Your task to perform on an android device: open app "DuckDuckGo Privacy Browser" Image 0: 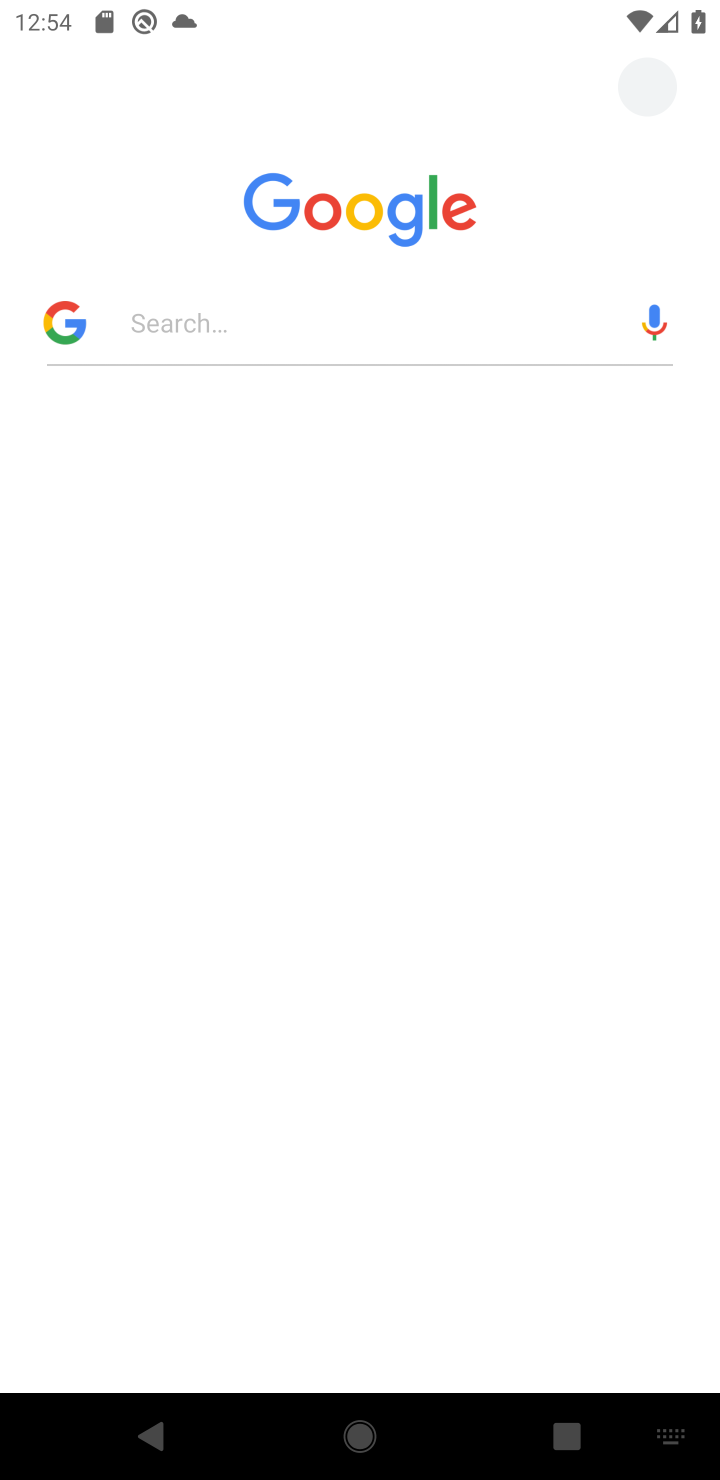
Step 0: press home button
Your task to perform on an android device: open app "DuckDuckGo Privacy Browser" Image 1: 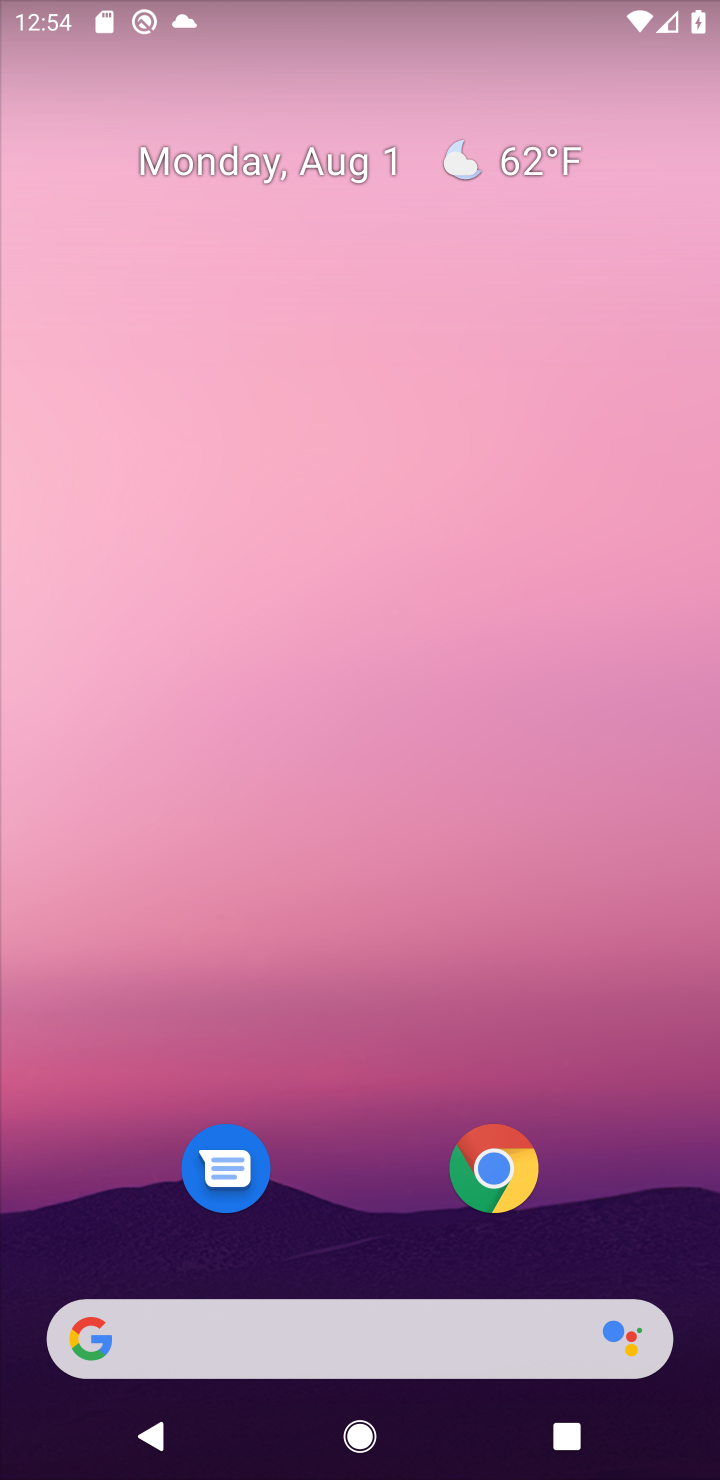
Step 1: click (407, 489)
Your task to perform on an android device: open app "DuckDuckGo Privacy Browser" Image 2: 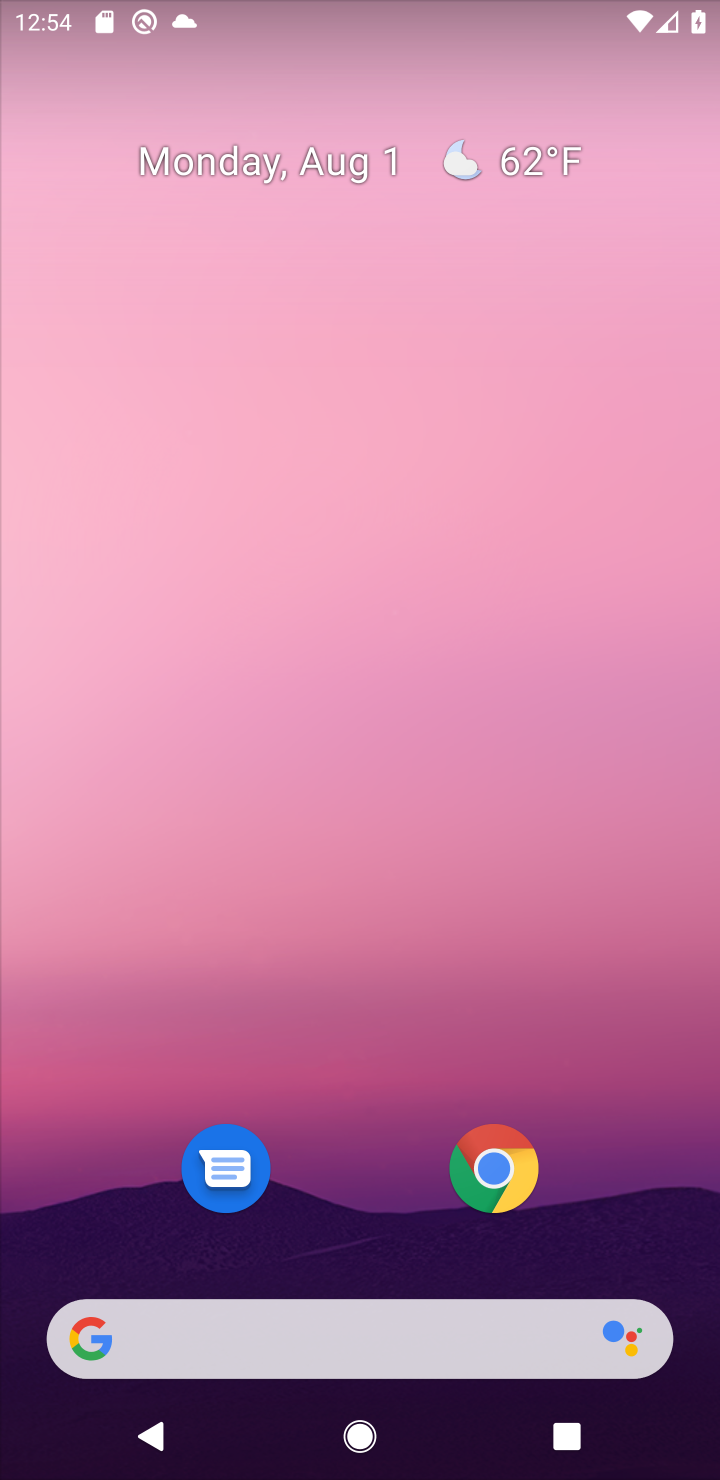
Step 2: drag from (369, 1229) to (275, 122)
Your task to perform on an android device: open app "DuckDuckGo Privacy Browser" Image 3: 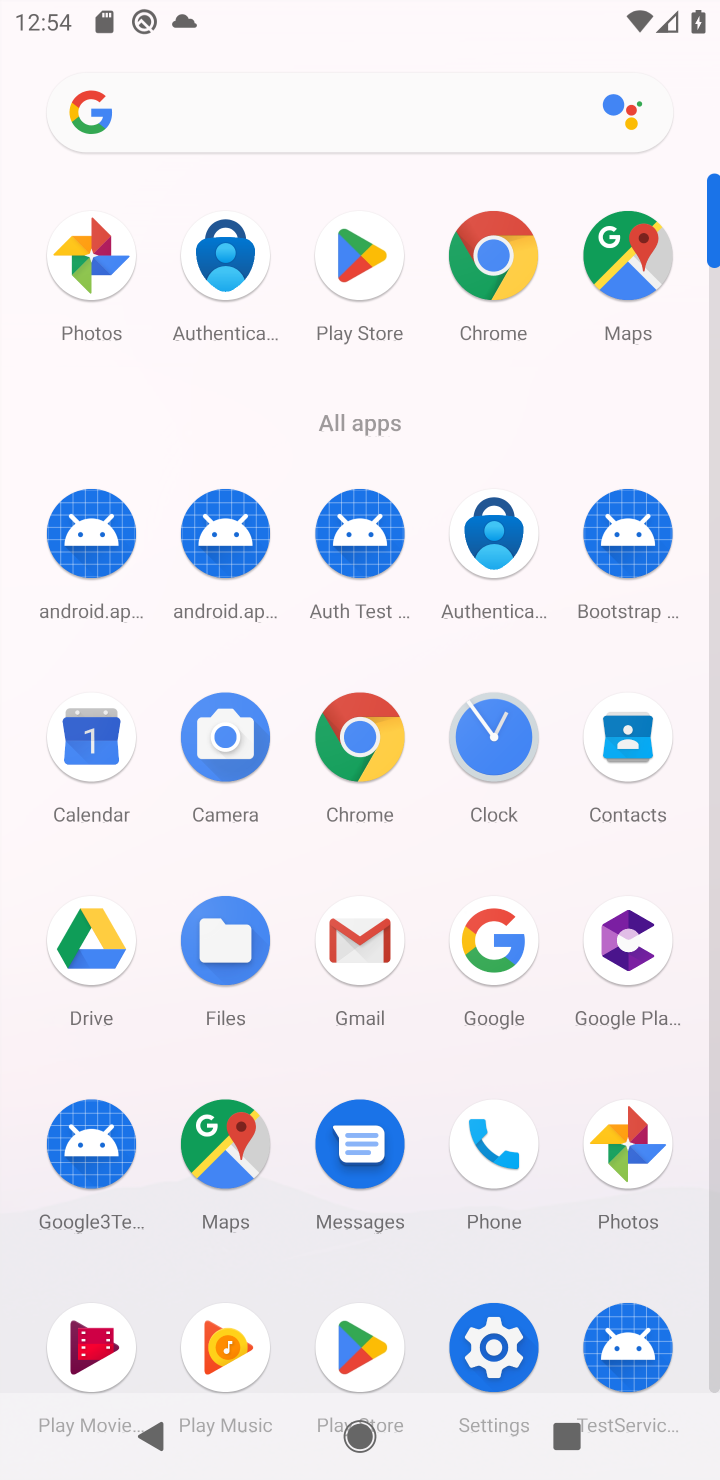
Step 3: click (348, 1353)
Your task to perform on an android device: open app "DuckDuckGo Privacy Browser" Image 4: 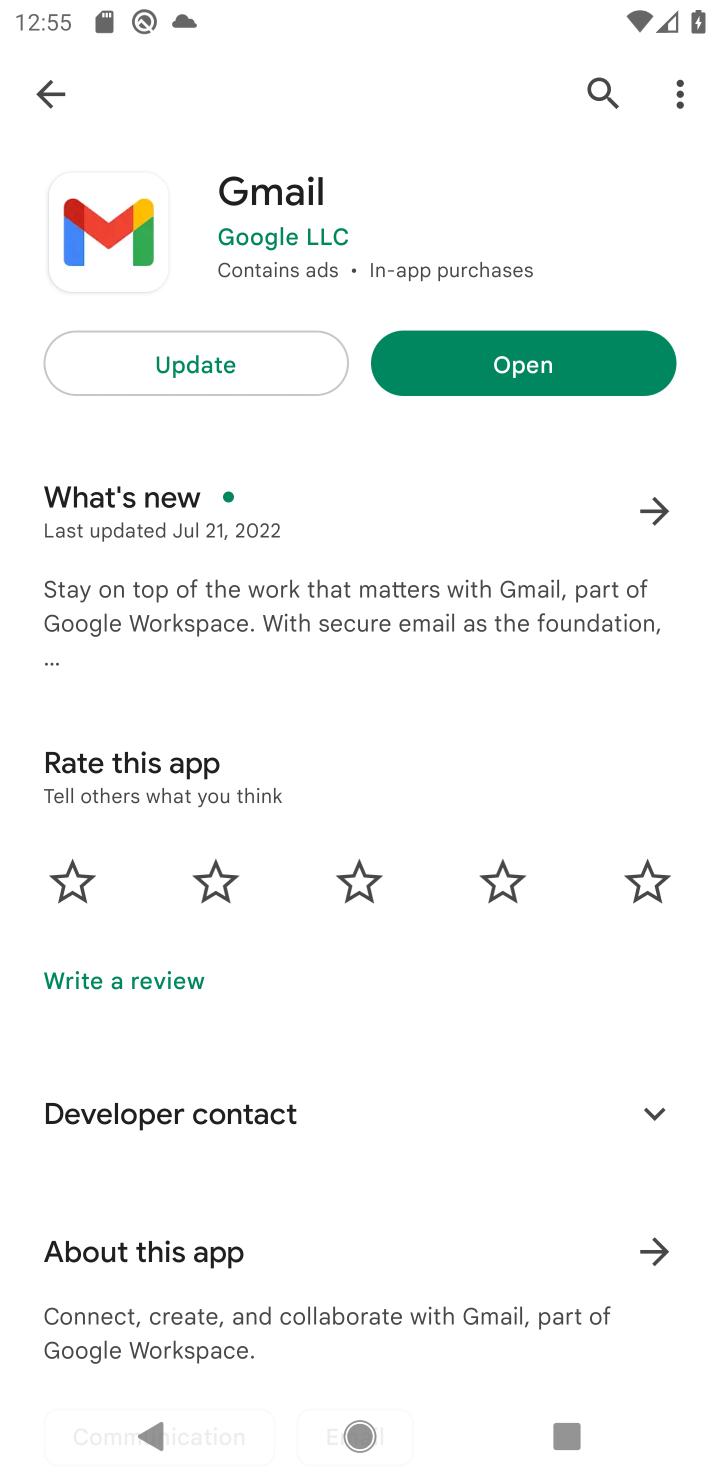
Step 4: click (595, 88)
Your task to perform on an android device: open app "DuckDuckGo Privacy Browser" Image 5: 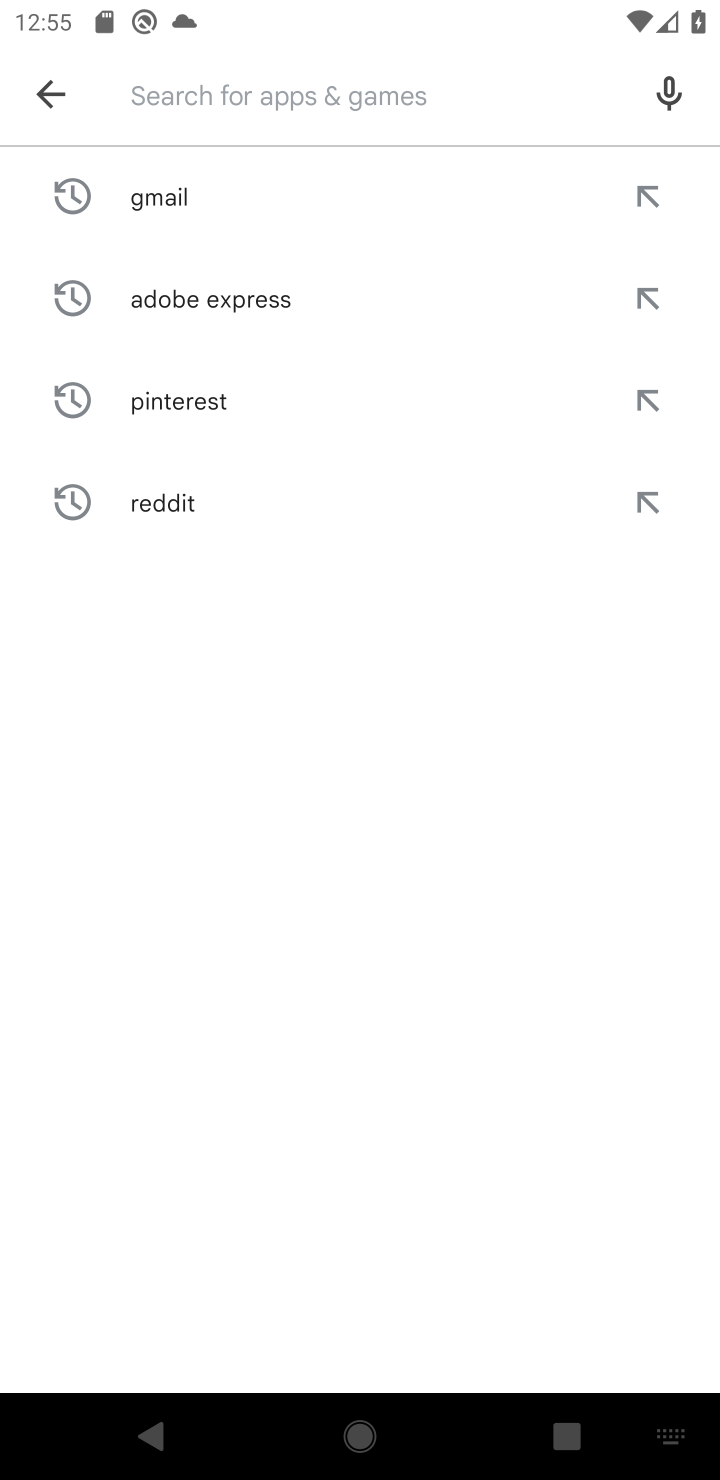
Step 5: type "DuckDuckGo Privacy Browser"
Your task to perform on an android device: open app "DuckDuckGo Privacy Browser" Image 6: 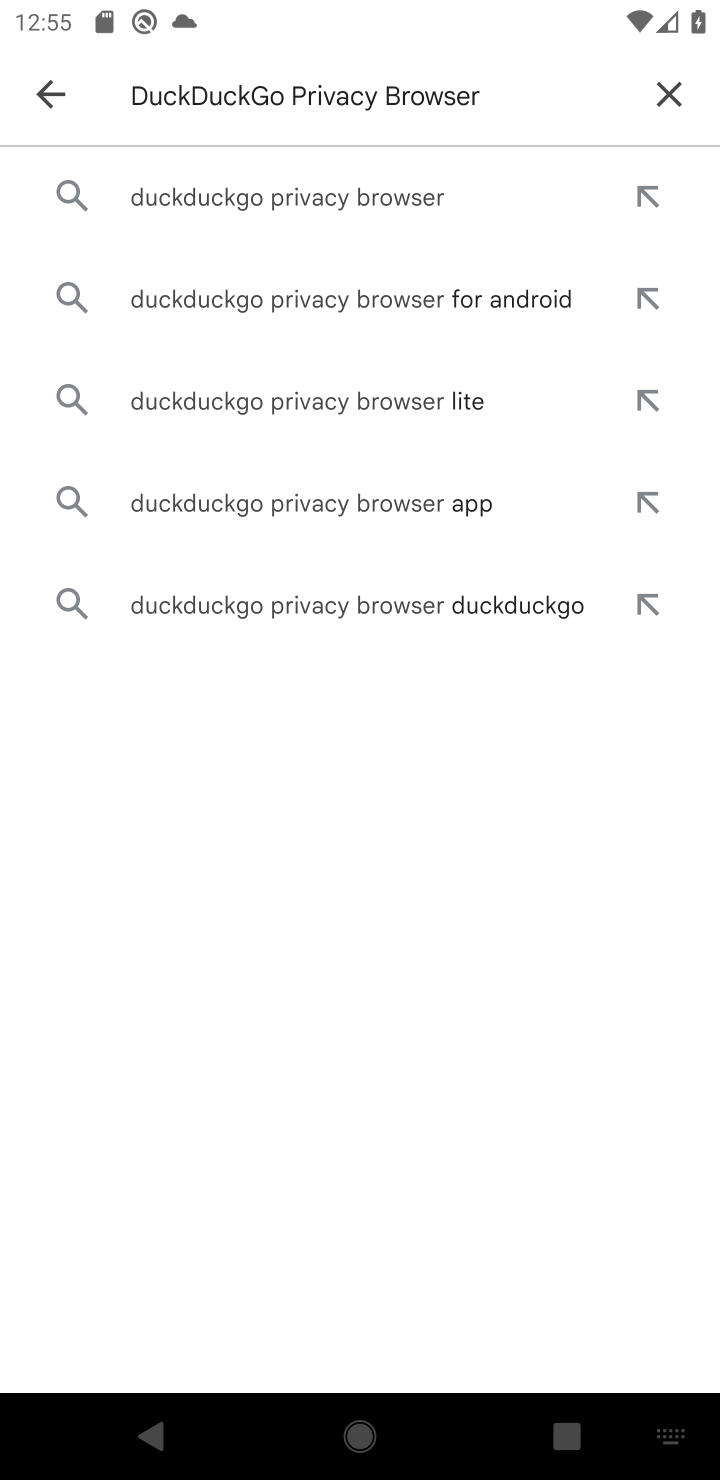
Step 6: click (312, 199)
Your task to perform on an android device: open app "DuckDuckGo Privacy Browser" Image 7: 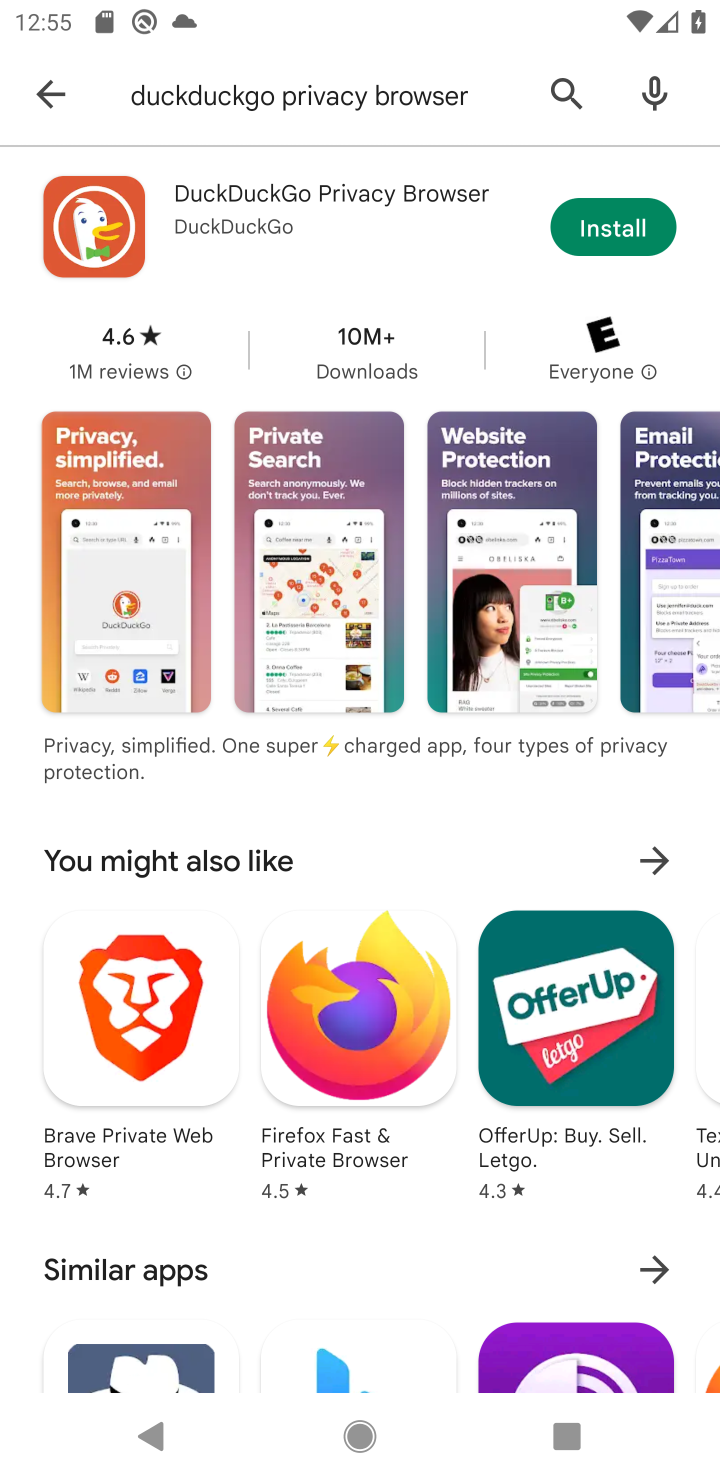
Step 7: click (609, 249)
Your task to perform on an android device: open app "DuckDuckGo Privacy Browser" Image 8: 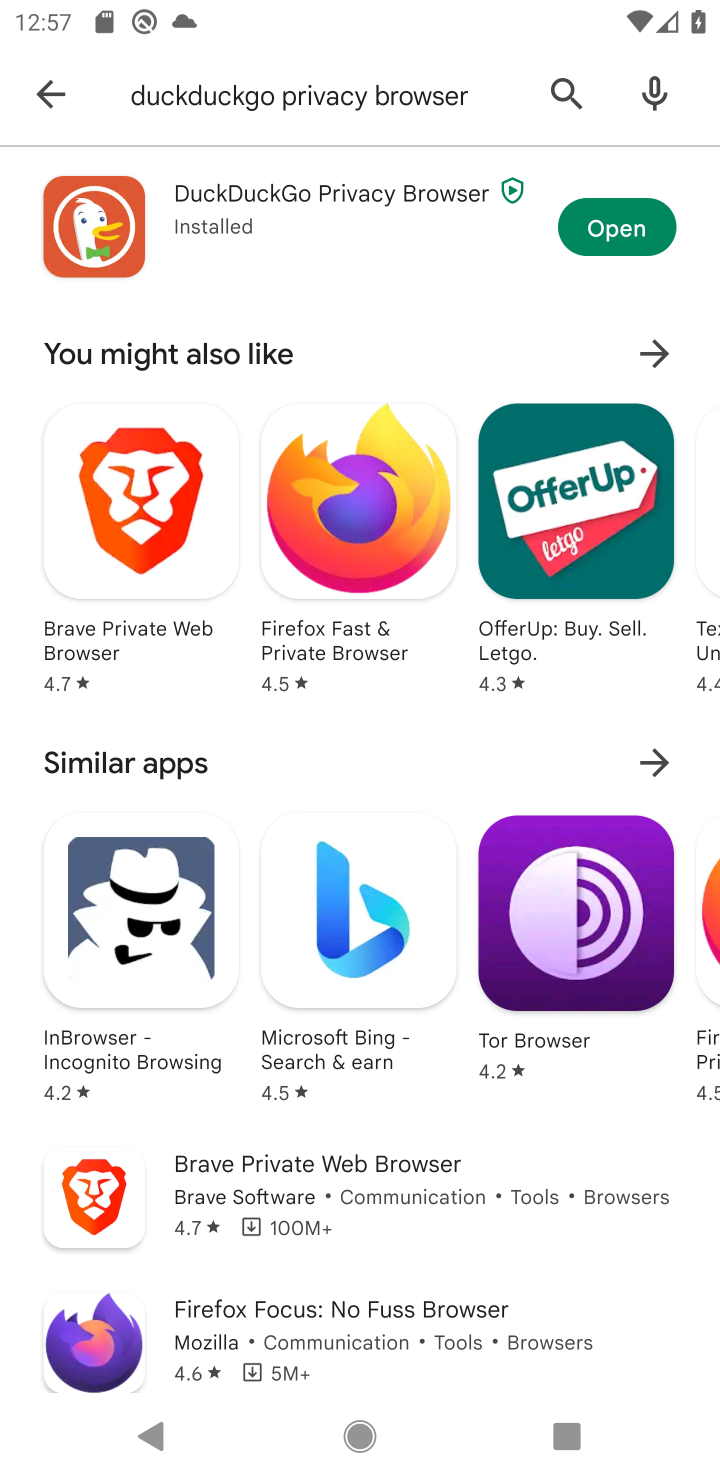
Step 8: task complete